Your task to perform on an android device: see tabs open on other devices in the chrome app Image 0: 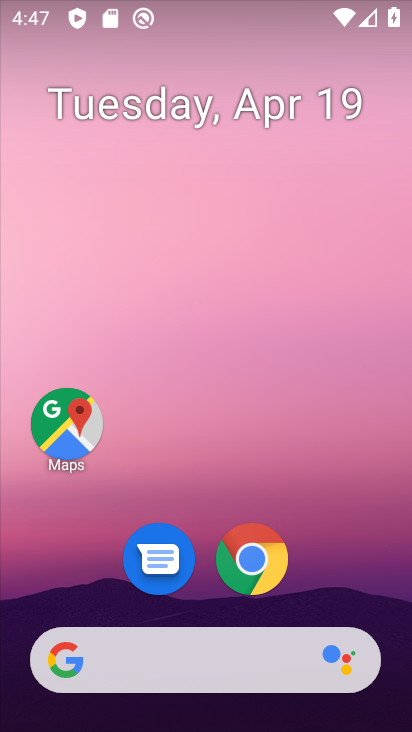
Step 0: click (264, 568)
Your task to perform on an android device: see tabs open on other devices in the chrome app Image 1: 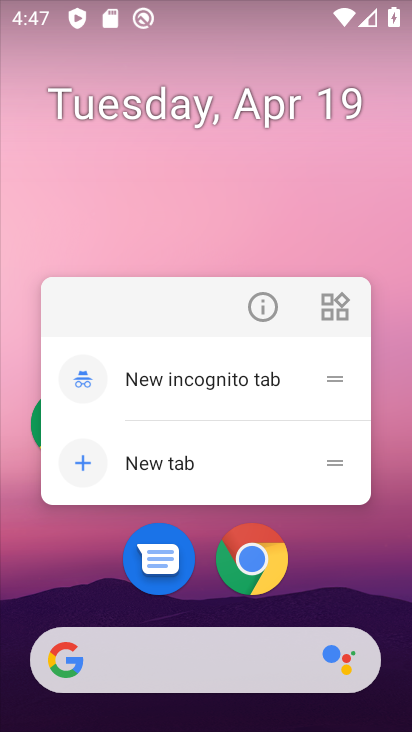
Step 1: click (264, 568)
Your task to perform on an android device: see tabs open on other devices in the chrome app Image 2: 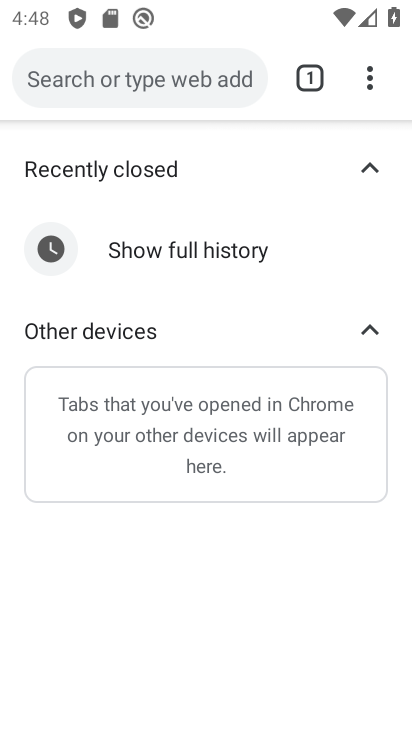
Step 2: click (214, 248)
Your task to perform on an android device: see tabs open on other devices in the chrome app Image 3: 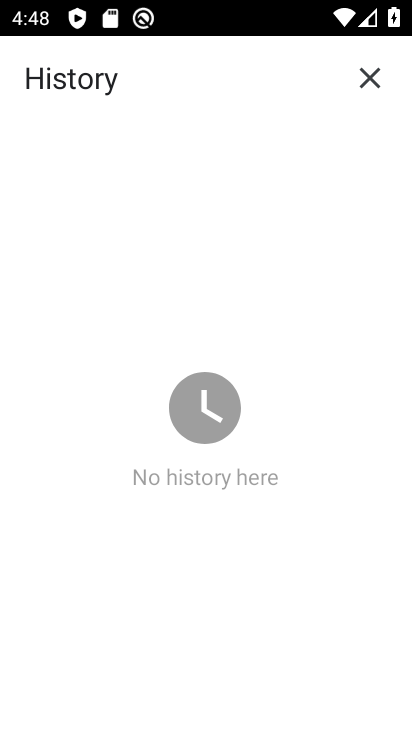
Step 3: task complete